Your task to perform on an android device: toggle translation in the chrome app Image 0: 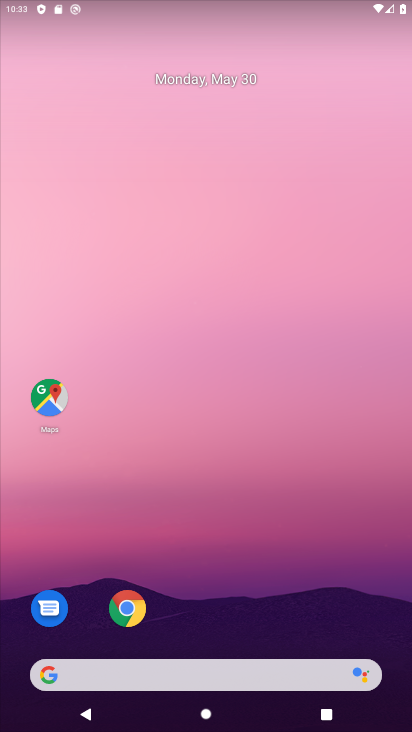
Step 0: drag from (302, 539) to (255, 20)
Your task to perform on an android device: toggle translation in the chrome app Image 1: 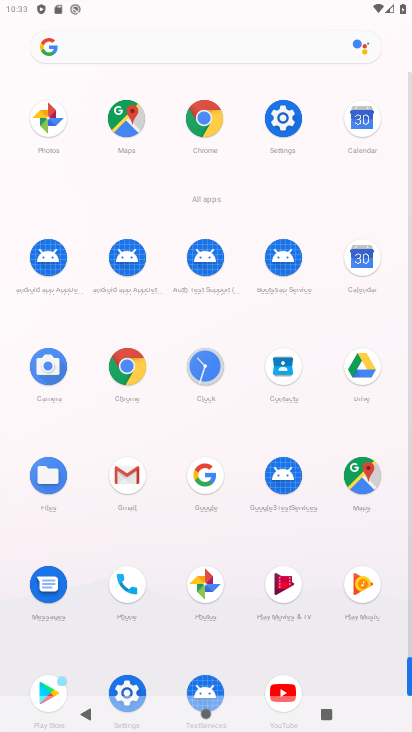
Step 1: drag from (3, 630) to (6, 247)
Your task to perform on an android device: toggle translation in the chrome app Image 2: 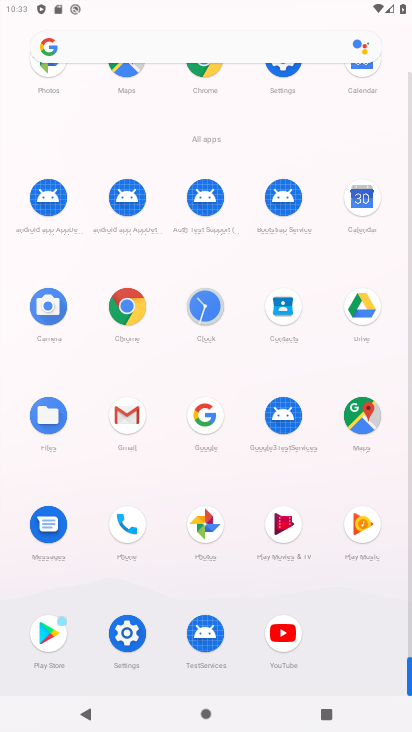
Step 2: click (123, 306)
Your task to perform on an android device: toggle translation in the chrome app Image 3: 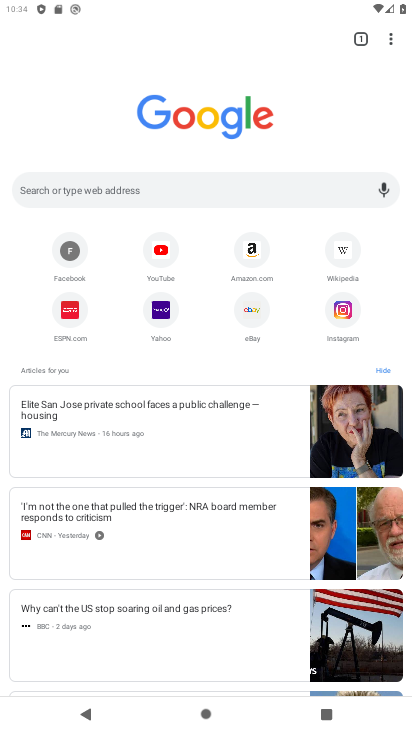
Step 3: drag from (391, 38) to (253, 374)
Your task to perform on an android device: toggle translation in the chrome app Image 4: 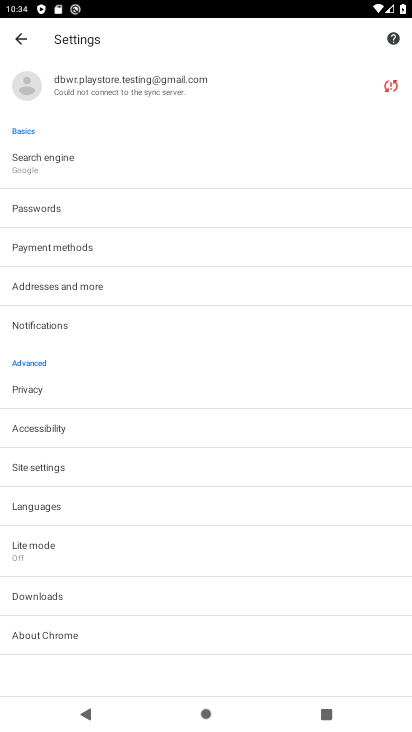
Step 4: drag from (170, 656) to (202, 176)
Your task to perform on an android device: toggle translation in the chrome app Image 5: 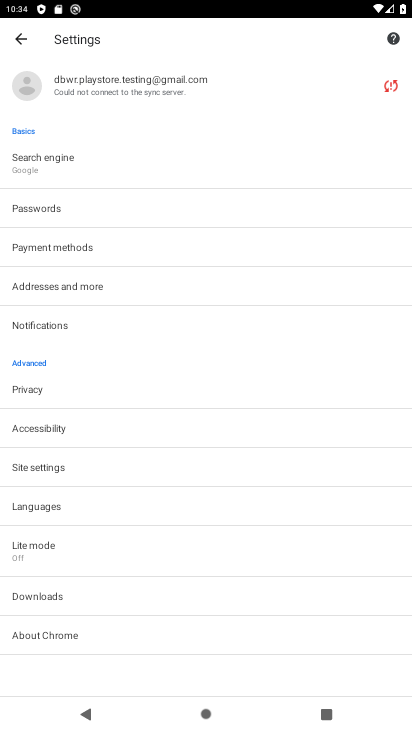
Step 5: click (47, 507)
Your task to perform on an android device: toggle translation in the chrome app Image 6: 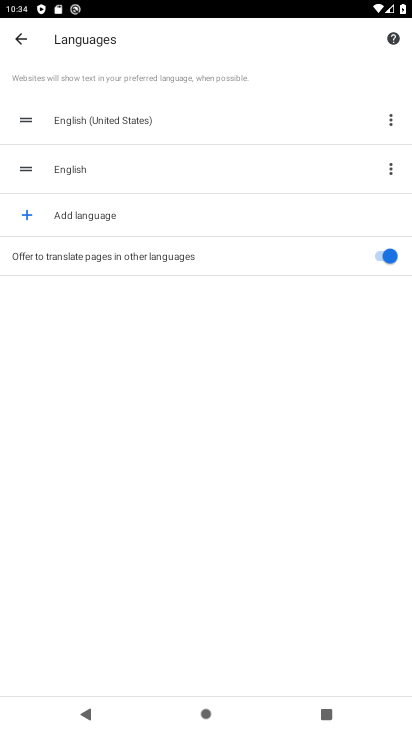
Step 6: click (383, 248)
Your task to perform on an android device: toggle translation in the chrome app Image 7: 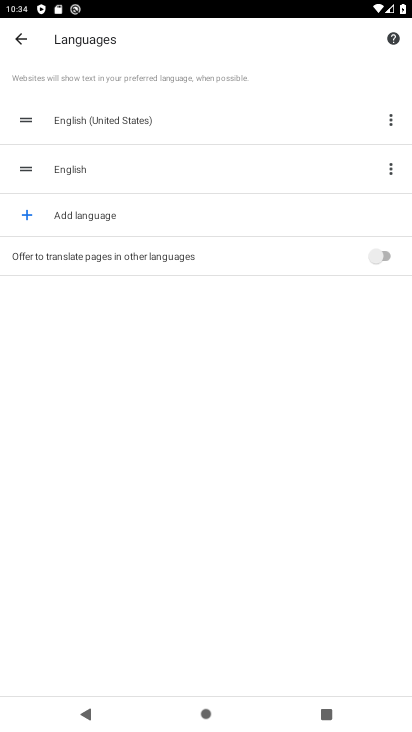
Step 7: task complete